Your task to perform on an android device: Search for Mexican restaurants on Maps Image 0: 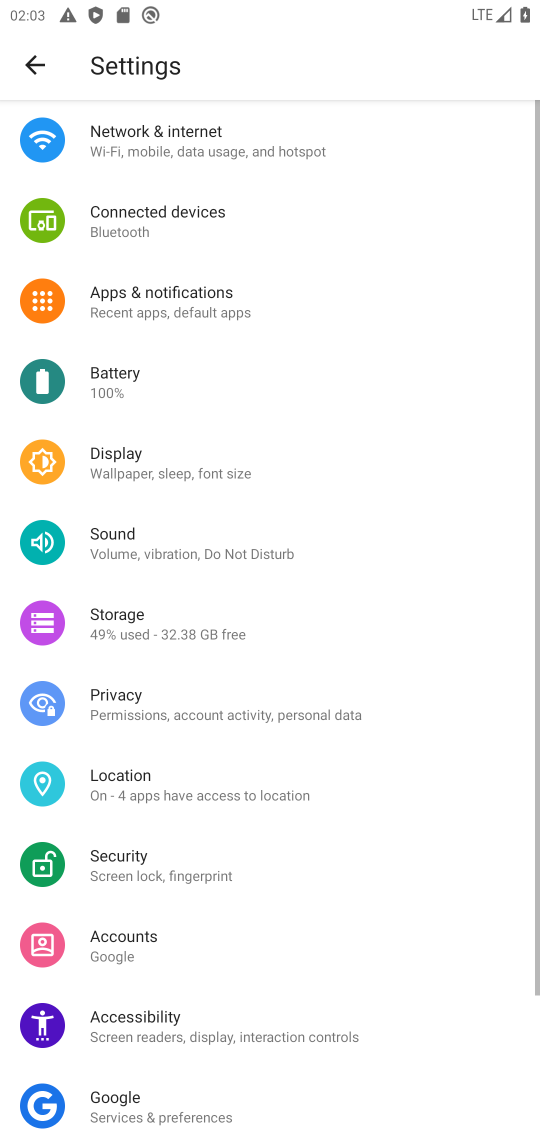
Step 0: press home button
Your task to perform on an android device: Search for Mexican restaurants on Maps Image 1: 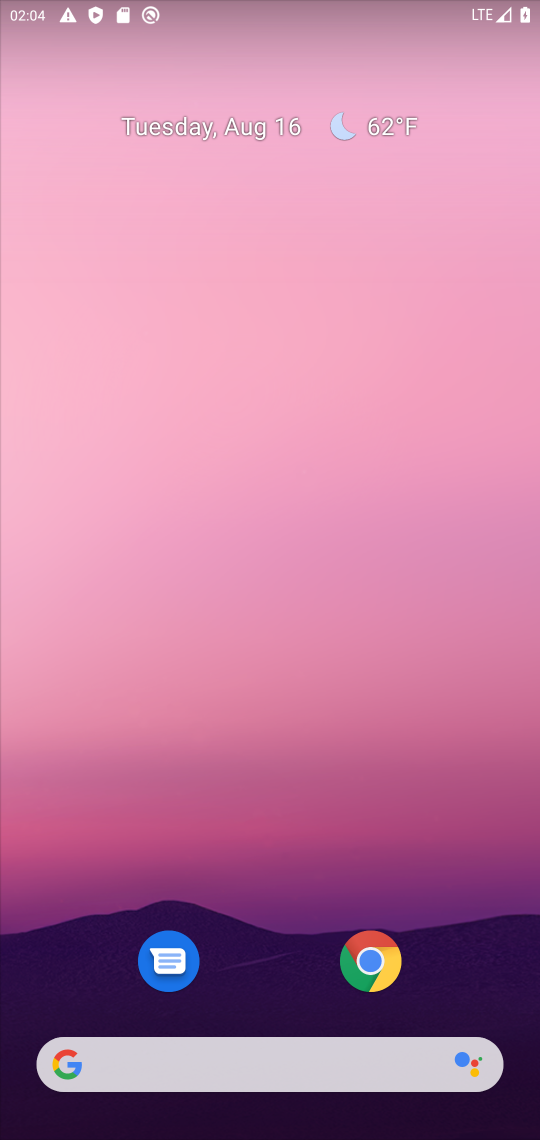
Step 1: drag from (279, 884) to (408, 9)
Your task to perform on an android device: Search for Mexican restaurants on Maps Image 2: 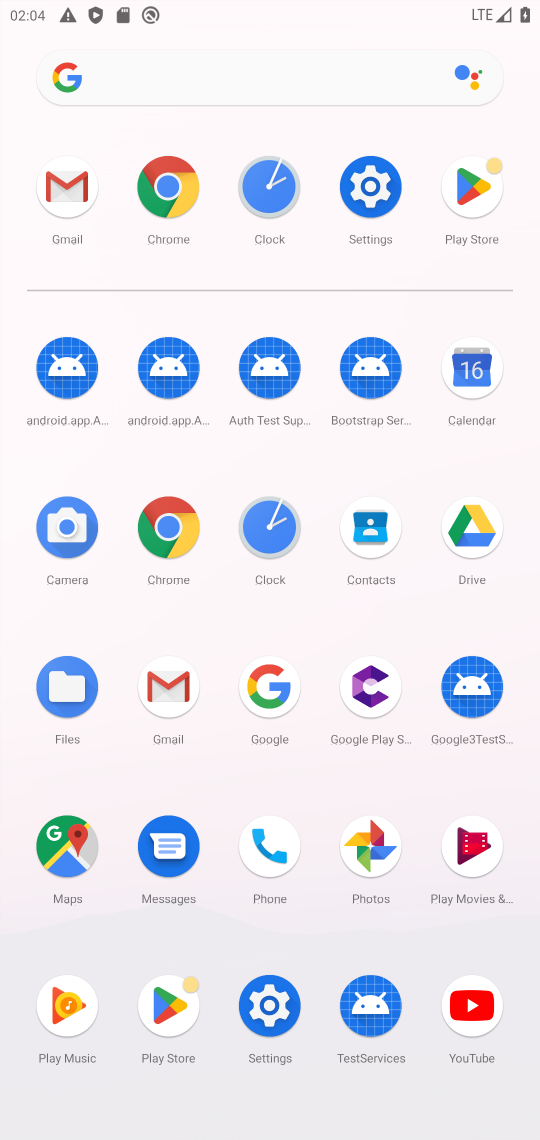
Step 2: click (60, 861)
Your task to perform on an android device: Search for Mexican restaurants on Maps Image 3: 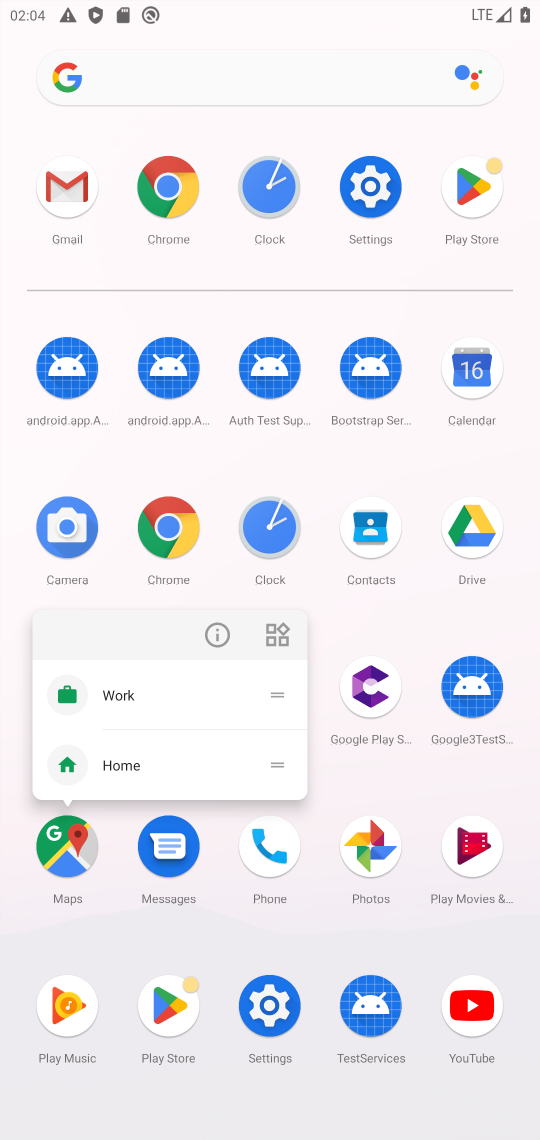
Step 3: click (59, 834)
Your task to perform on an android device: Search for Mexican restaurants on Maps Image 4: 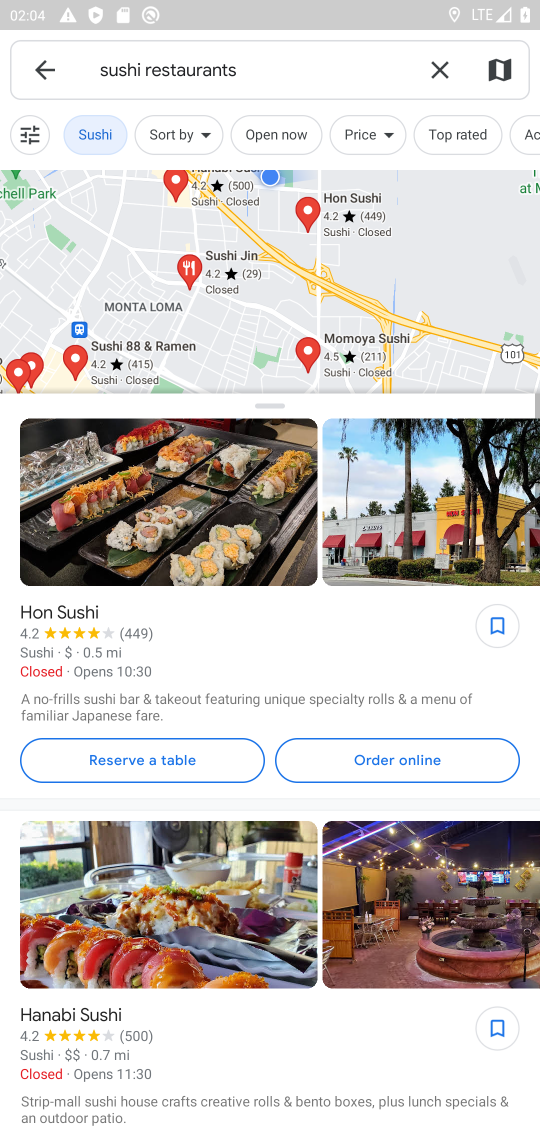
Step 4: click (426, 66)
Your task to perform on an android device: Search for Mexican restaurants on Maps Image 5: 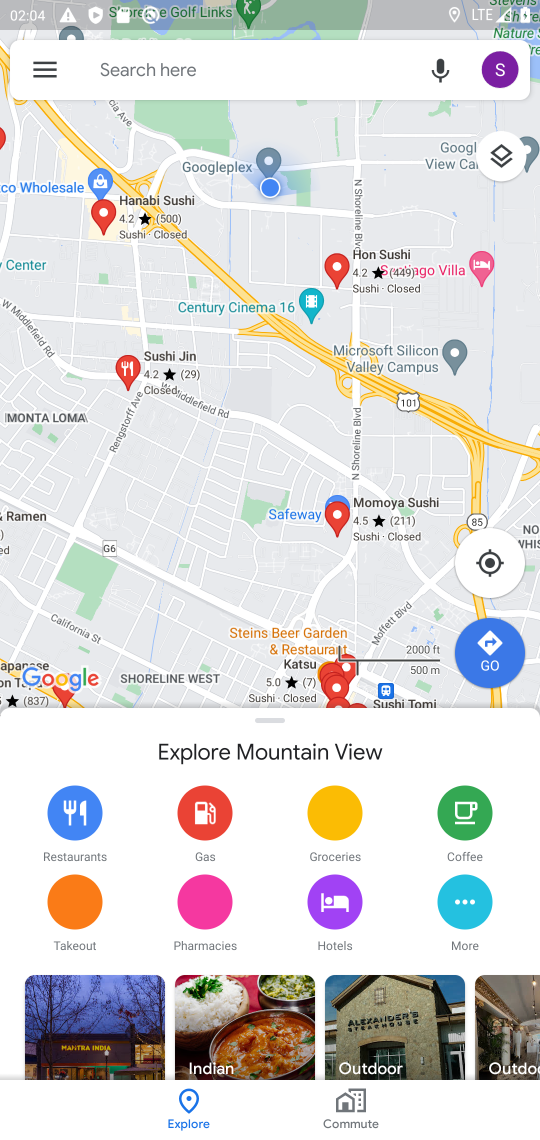
Step 5: click (296, 73)
Your task to perform on an android device: Search for Mexican restaurants on Maps Image 6: 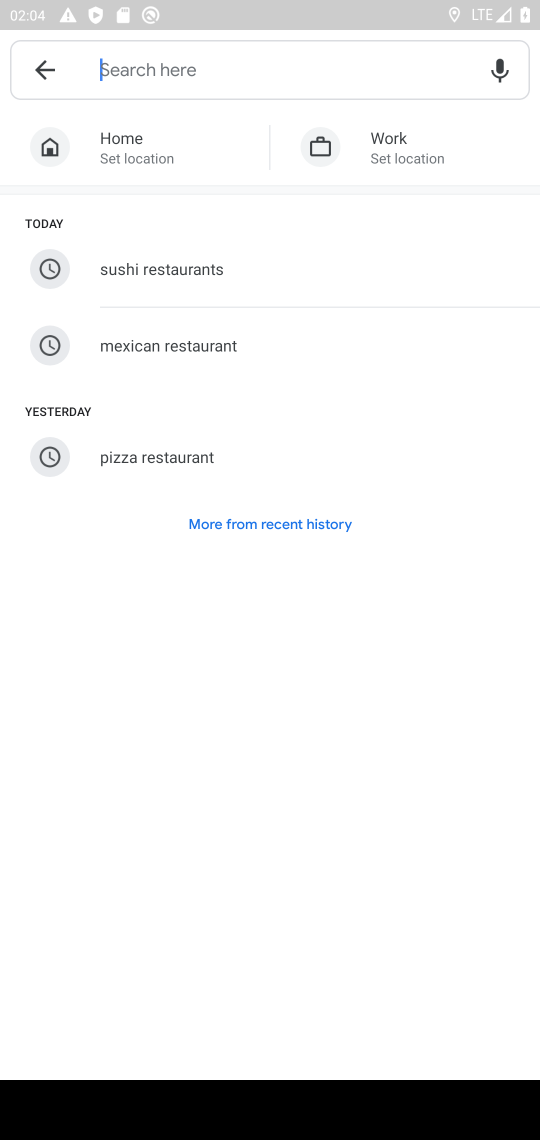
Step 6: type "Mexican restaurants "
Your task to perform on an android device: Search for Mexican restaurants on Maps Image 7: 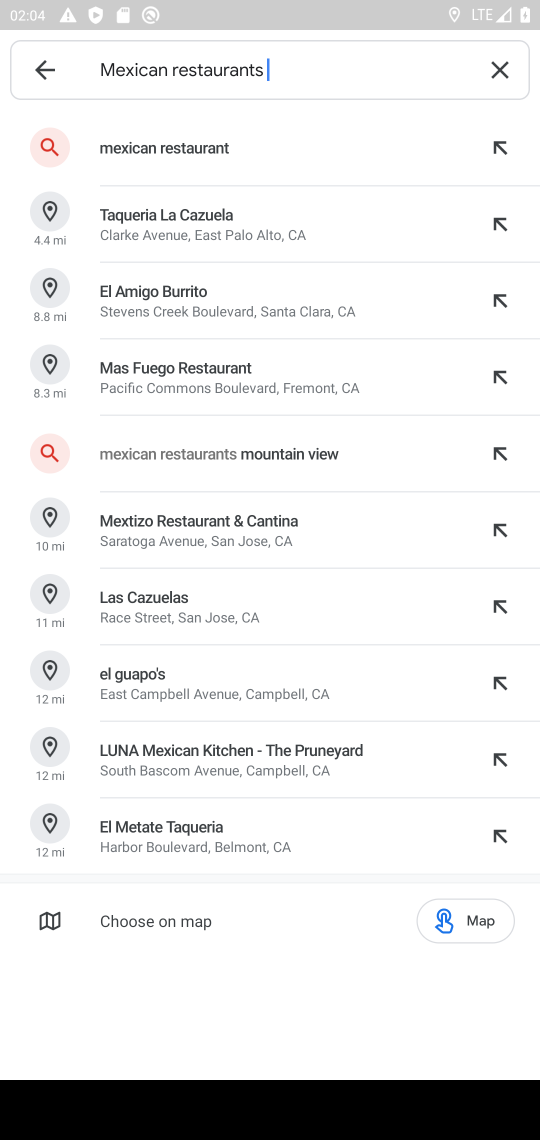
Step 7: click (162, 144)
Your task to perform on an android device: Search for Mexican restaurants on Maps Image 8: 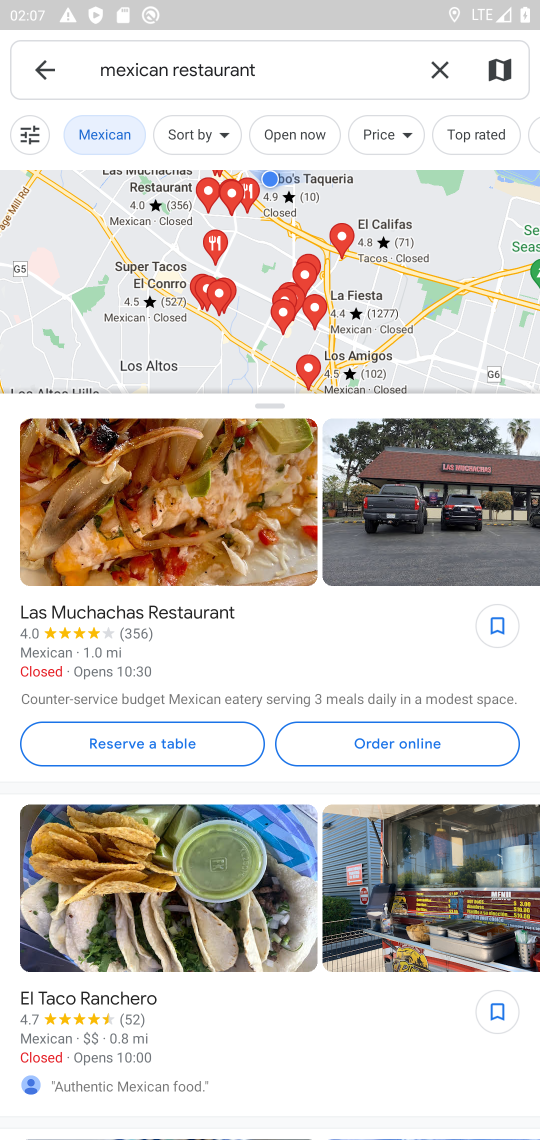
Step 8: task complete